Your task to perform on an android device: See recent photos Image 0: 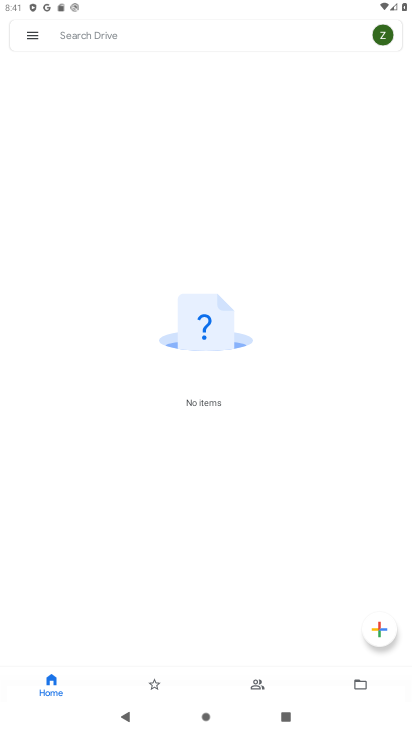
Step 0: press home button
Your task to perform on an android device: See recent photos Image 1: 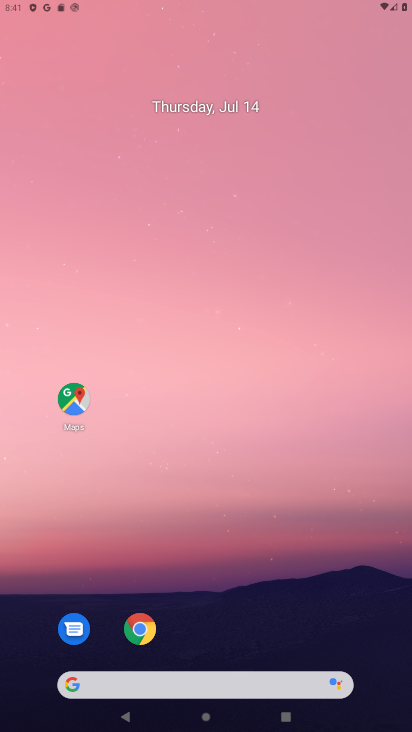
Step 1: drag from (244, 403) to (263, 105)
Your task to perform on an android device: See recent photos Image 2: 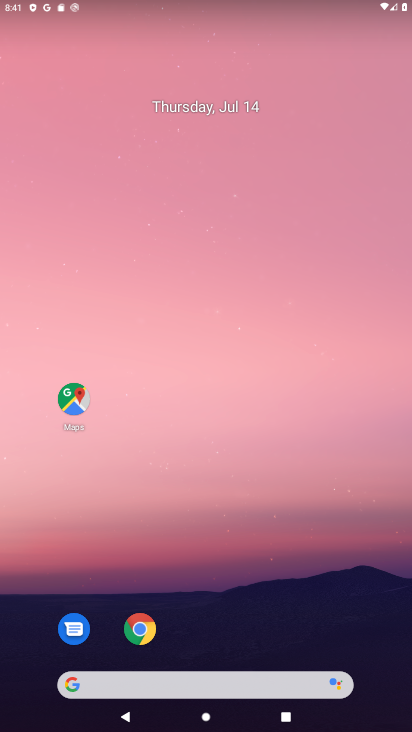
Step 2: drag from (255, 577) to (226, 58)
Your task to perform on an android device: See recent photos Image 3: 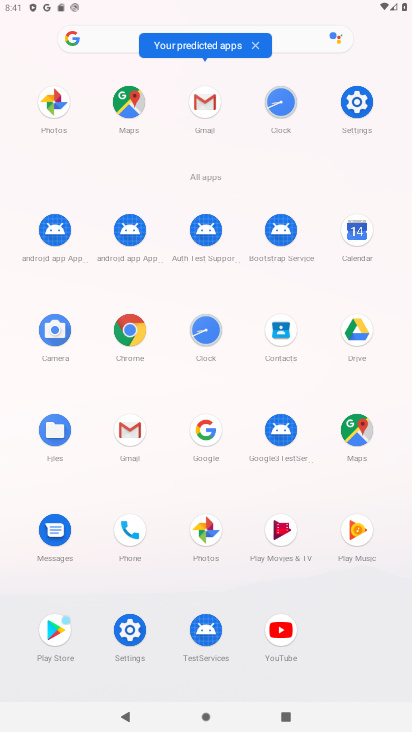
Step 3: click (205, 536)
Your task to perform on an android device: See recent photos Image 4: 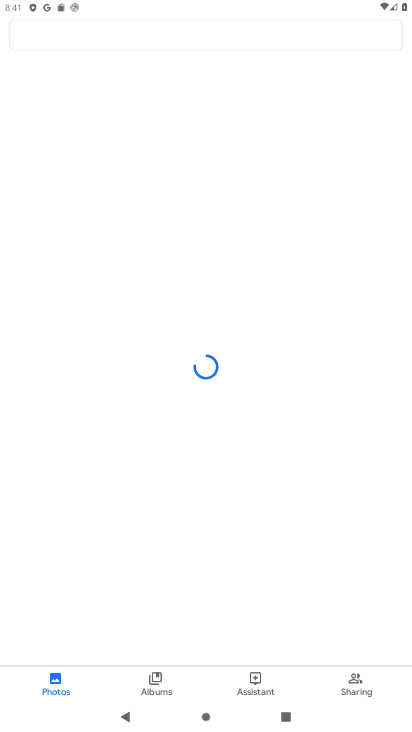
Step 4: click (42, 667)
Your task to perform on an android device: See recent photos Image 5: 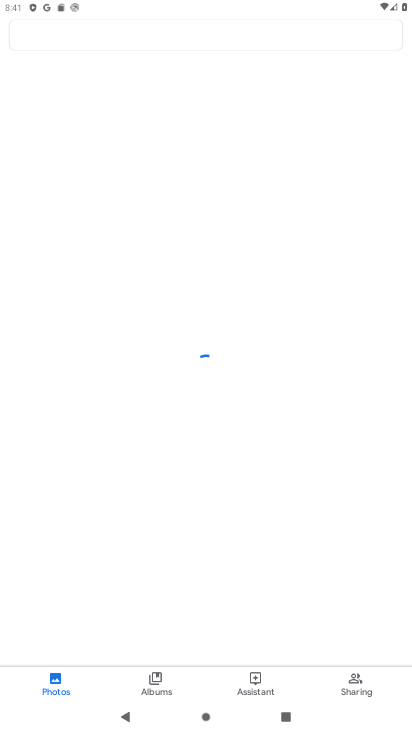
Step 5: click (42, 667)
Your task to perform on an android device: See recent photos Image 6: 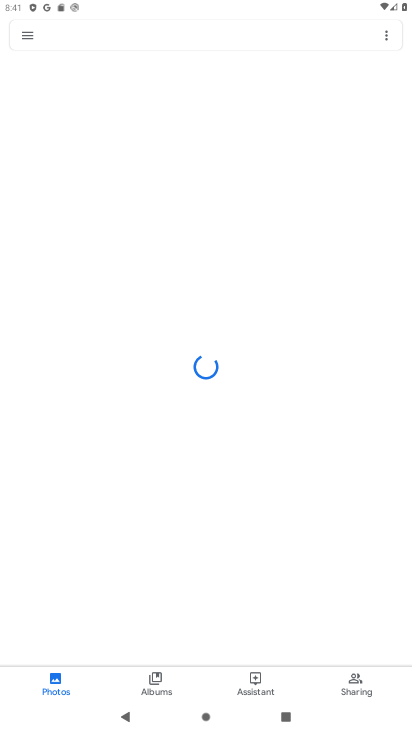
Step 6: click (49, 684)
Your task to perform on an android device: See recent photos Image 7: 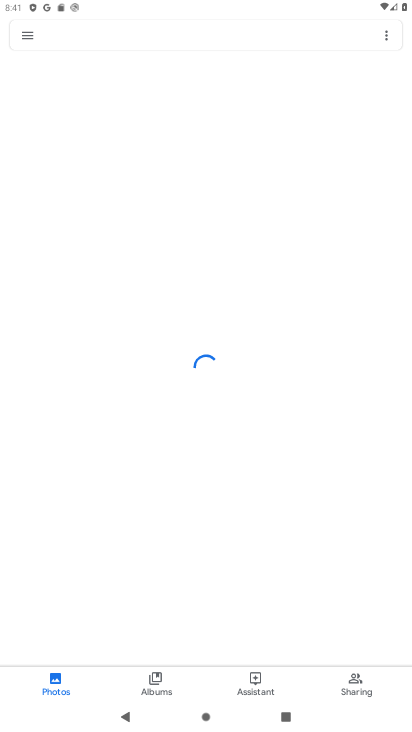
Step 7: click (49, 684)
Your task to perform on an android device: See recent photos Image 8: 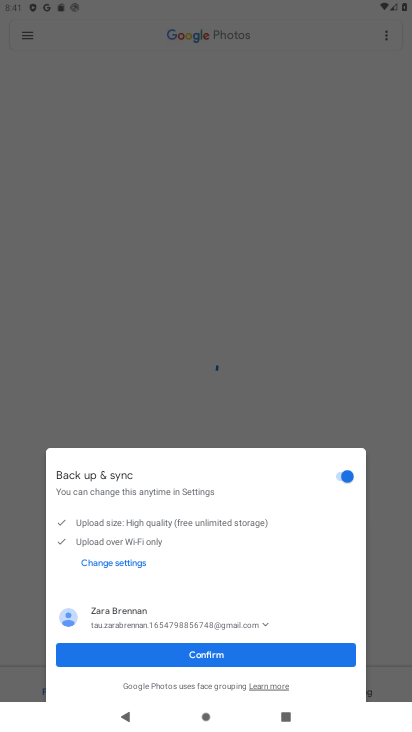
Step 8: click (205, 653)
Your task to perform on an android device: See recent photos Image 9: 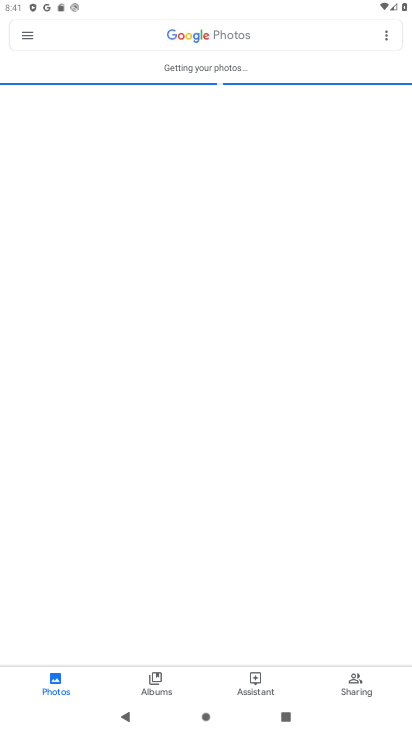
Step 9: click (50, 671)
Your task to perform on an android device: See recent photos Image 10: 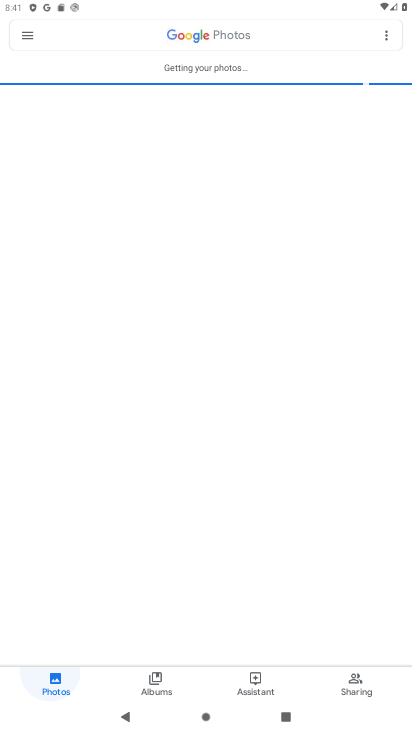
Step 10: click (50, 671)
Your task to perform on an android device: See recent photos Image 11: 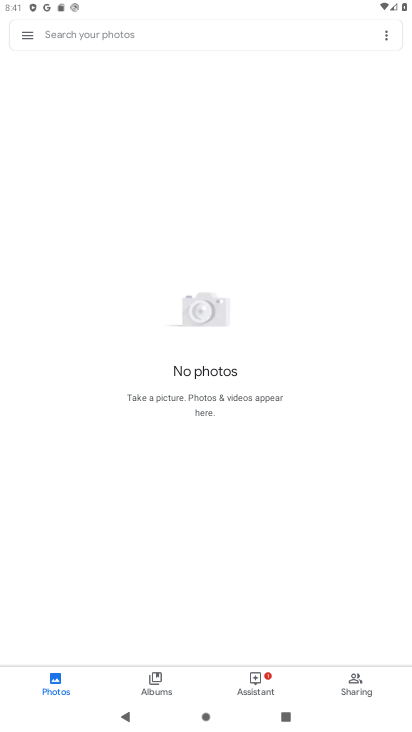
Step 11: task complete